Your task to perform on an android device: Open privacy settings Image 0: 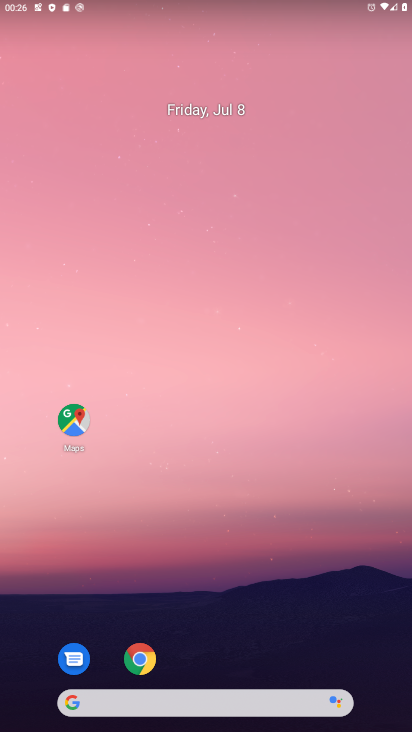
Step 0: drag from (341, 216) to (332, 619)
Your task to perform on an android device: Open privacy settings Image 1: 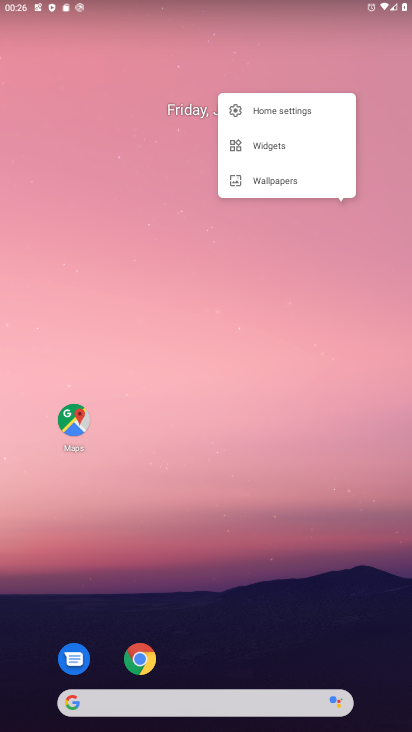
Step 1: drag from (210, 12) to (177, 635)
Your task to perform on an android device: Open privacy settings Image 2: 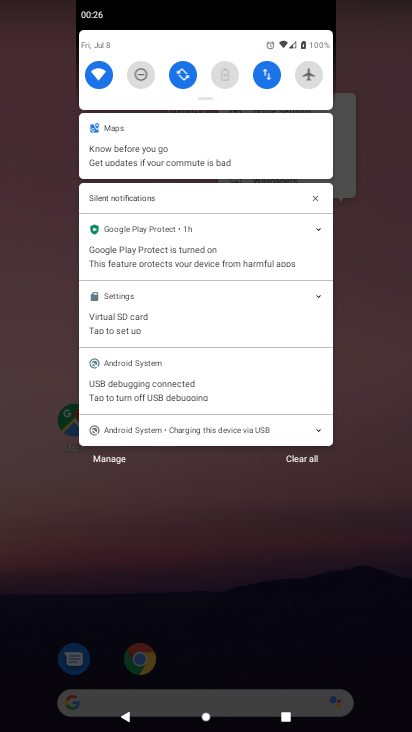
Step 2: drag from (221, 424) to (201, 559)
Your task to perform on an android device: Open privacy settings Image 3: 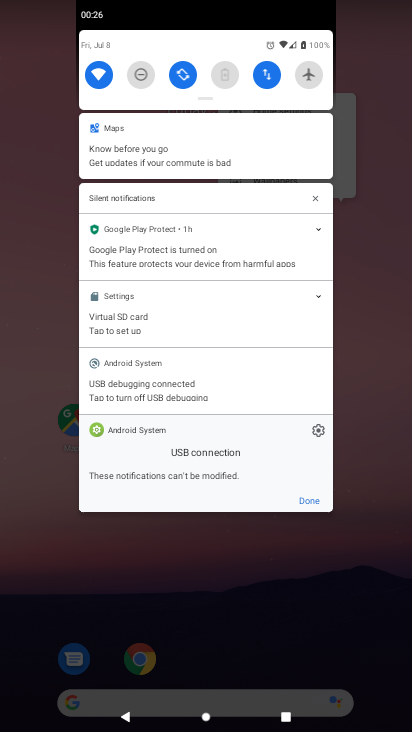
Step 3: drag from (214, 41) to (263, 482)
Your task to perform on an android device: Open privacy settings Image 4: 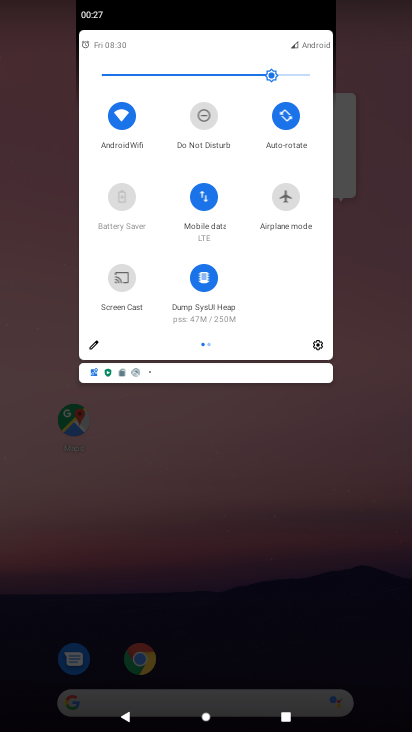
Step 4: click (317, 344)
Your task to perform on an android device: Open privacy settings Image 5: 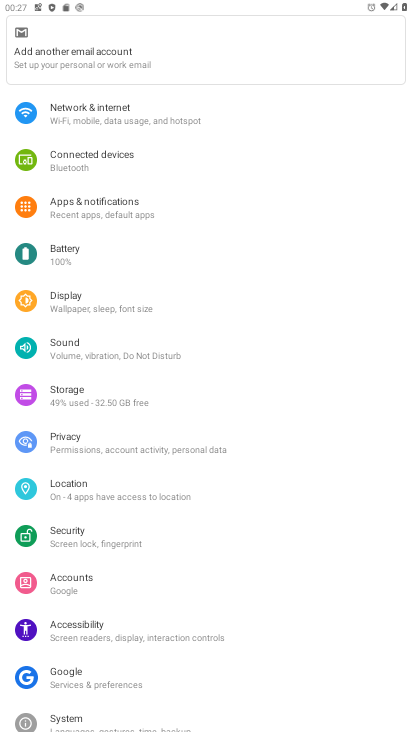
Step 5: click (101, 442)
Your task to perform on an android device: Open privacy settings Image 6: 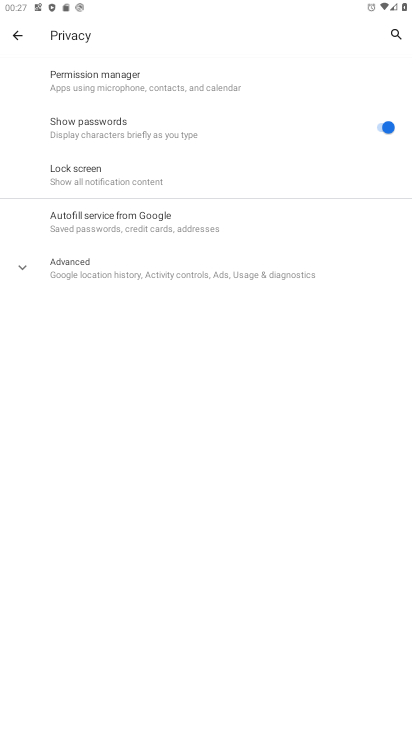
Step 6: task complete